Your task to perform on an android device: Add macbook to the cart on newegg.com Image 0: 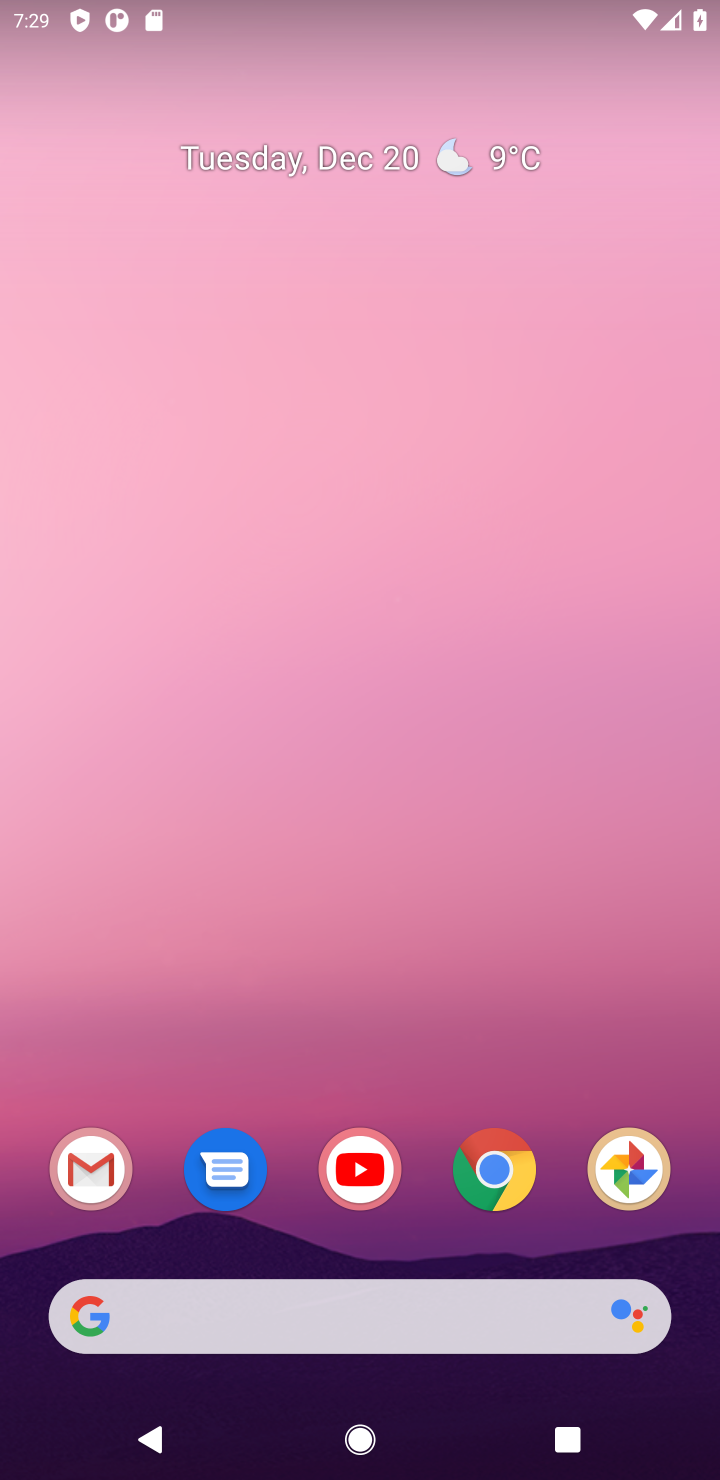
Step 0: click (482, 1194)
Your task to perform on an android device: Add macbook to the cart on newegg.com Image 1: 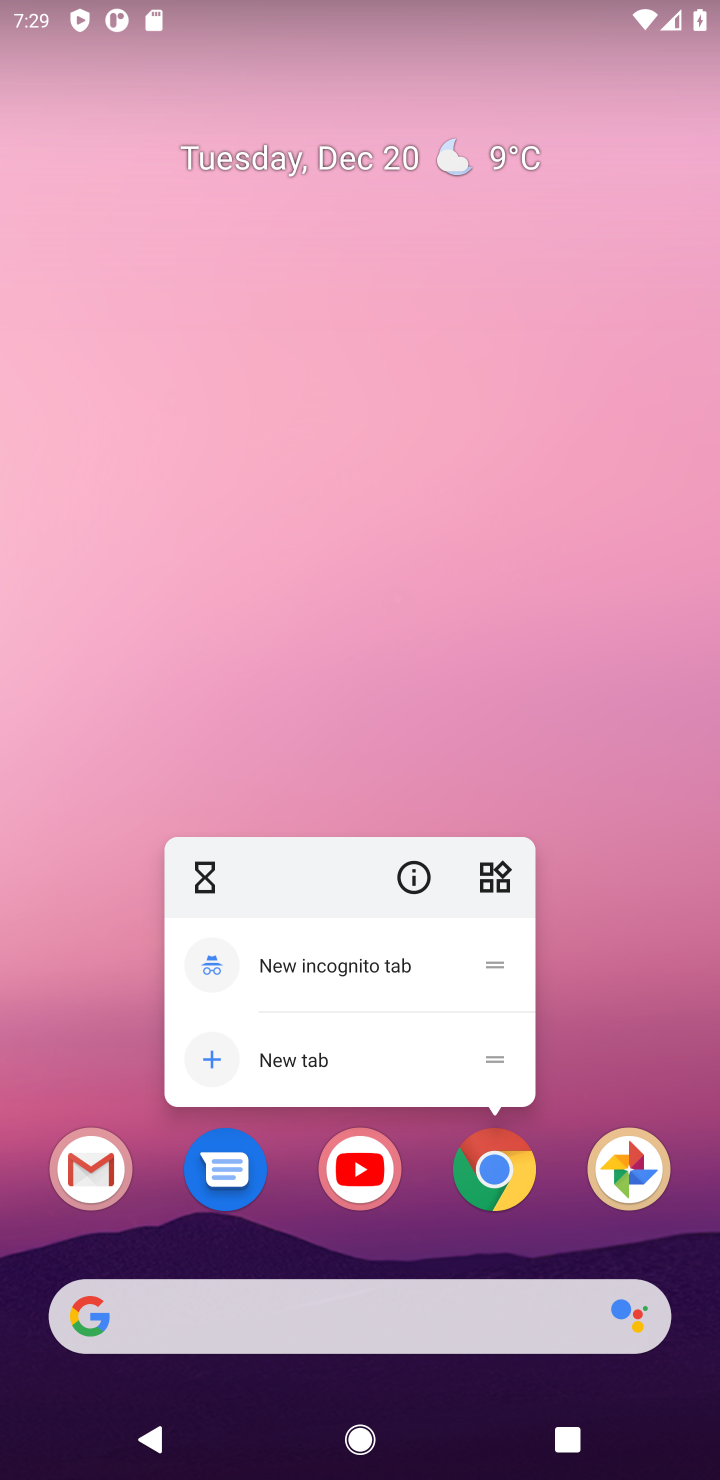
Step 1: click (482, 1194)
Your task to perform on an android device: Add macbook to the cart on newegg.com Image 2: 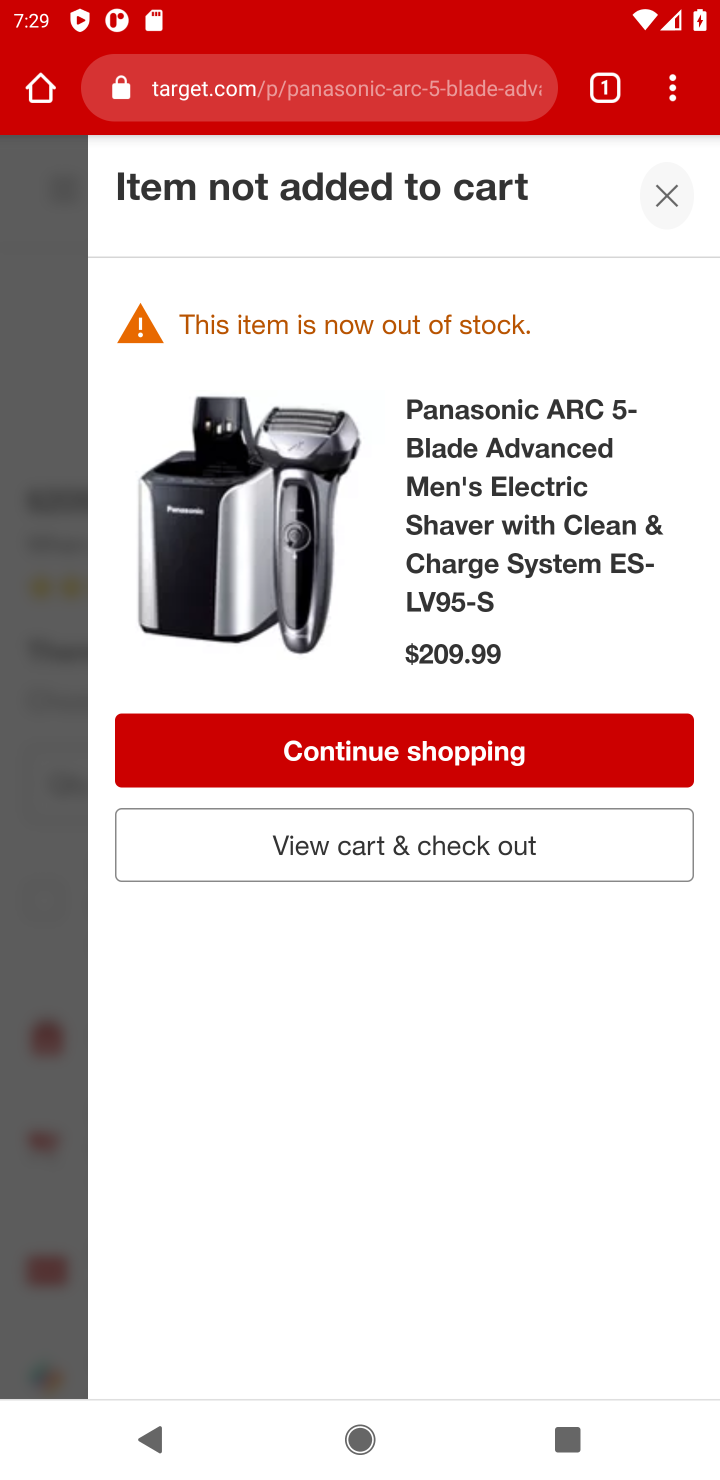
Step 2: click (680, 188)
Your task to perform on an android device: Add macbook to the cart on newegg.com Image 3: 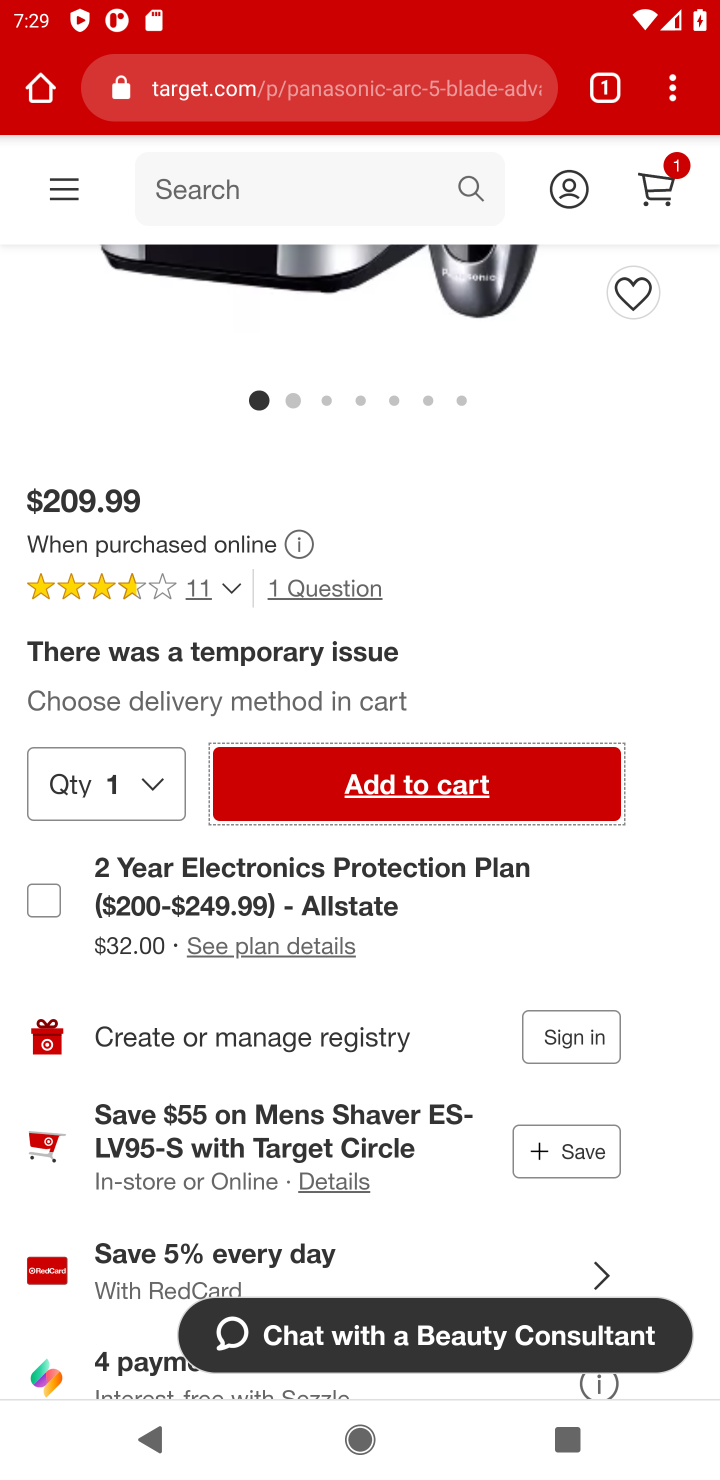
Step 3: click (463, 84)
Your task to perform on an android device: Add macbook to the cart on newegg.com Image 4: 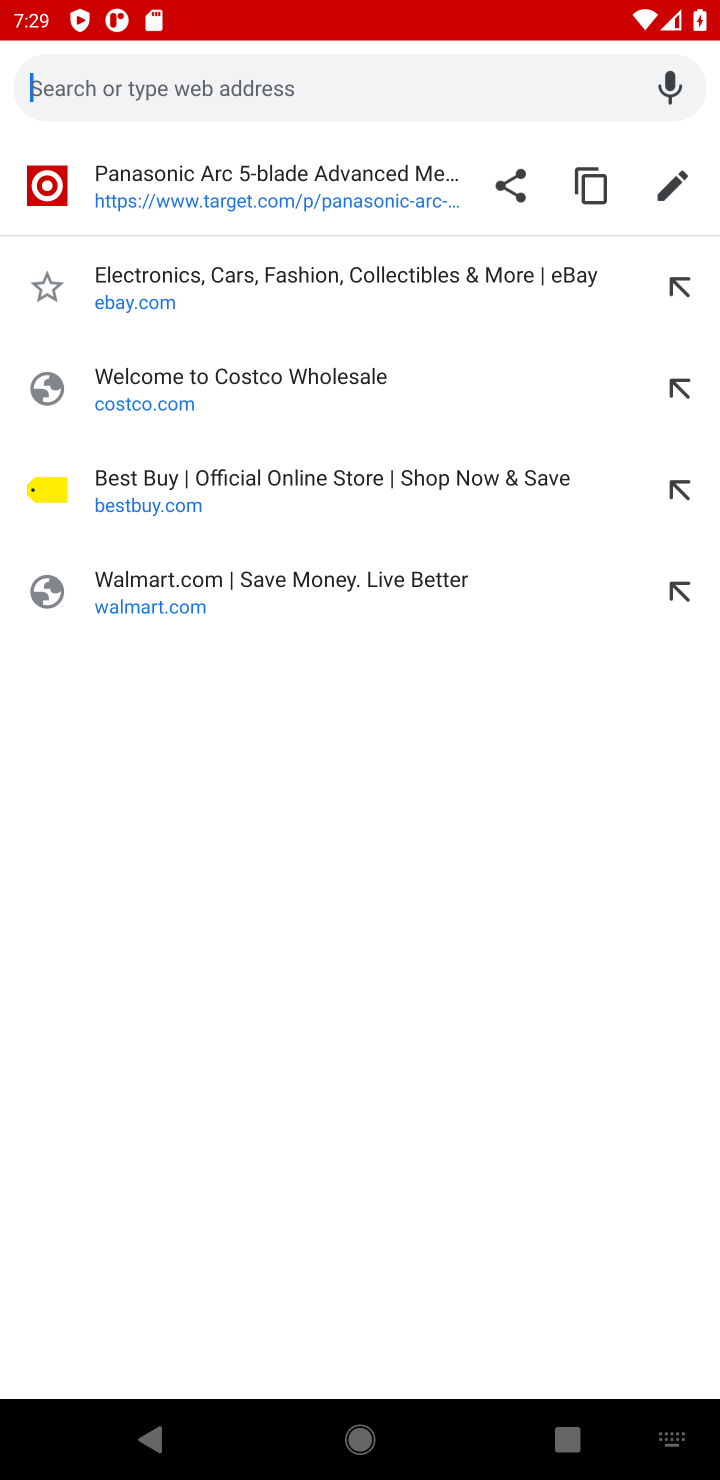
Step 4: type "newegg"
Your task to perform on an android device: Add macbook to the cart on newegg.com Image 5: 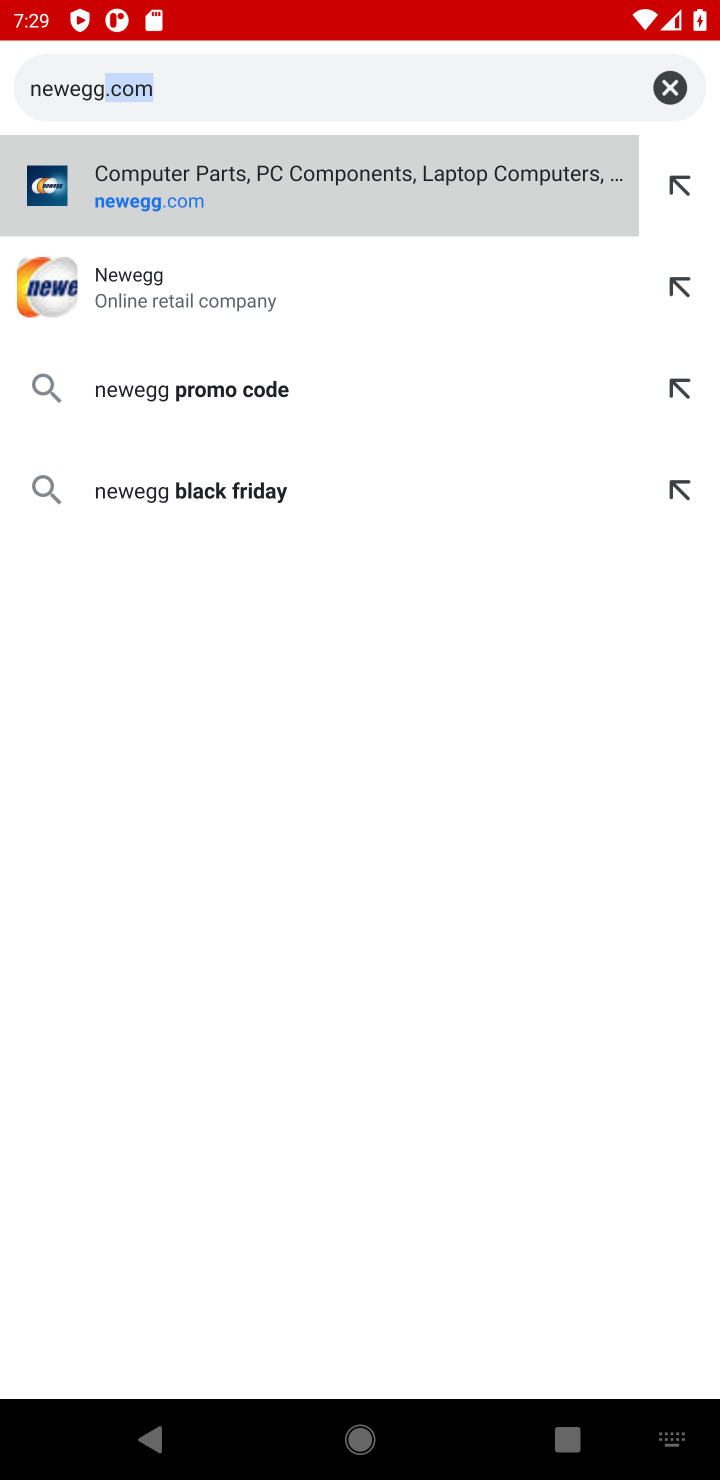
Step 5: click (186, 207)
Your task to perform on an android device: Add macbook to the cart on newegg.com Image 6: 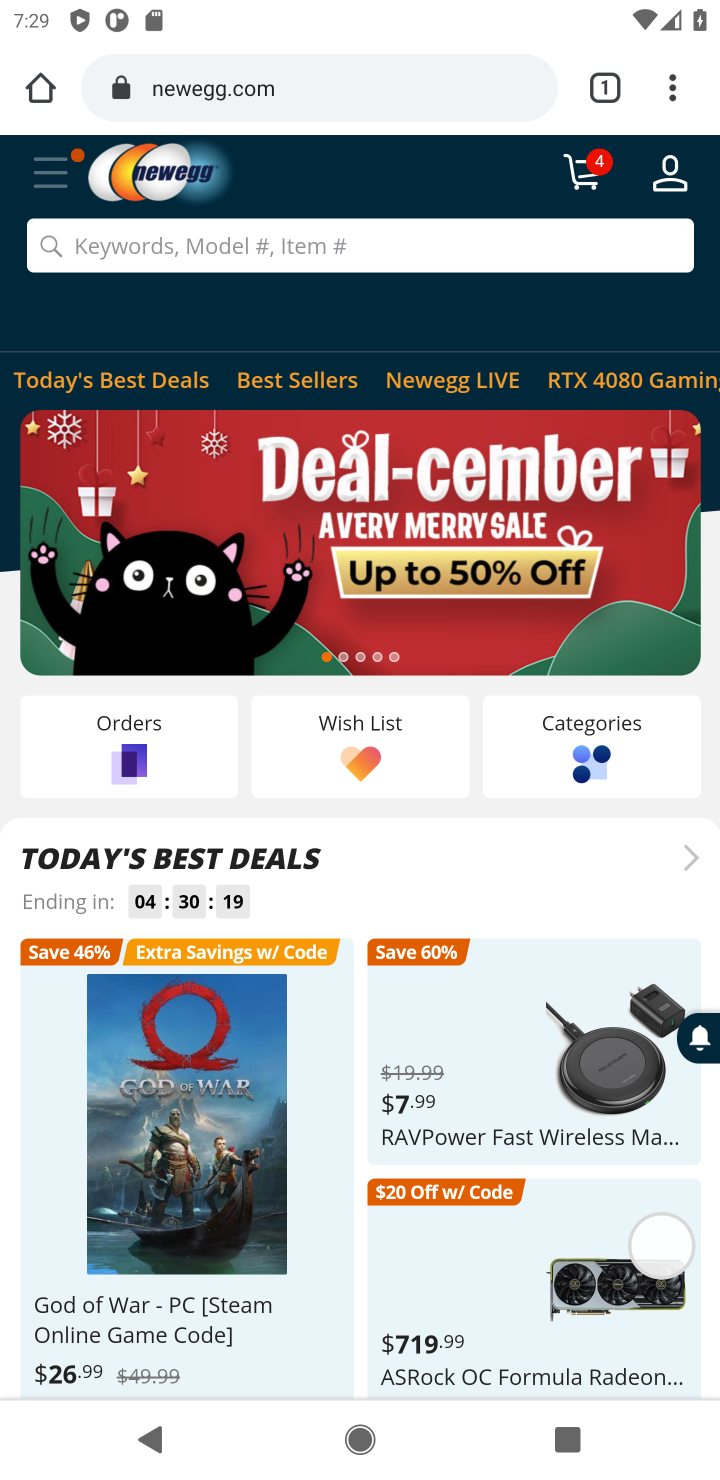
Step 6: click (354, 233)
Your task to perform on an android device: Add macbook to the cart on newegg.com Image 7: 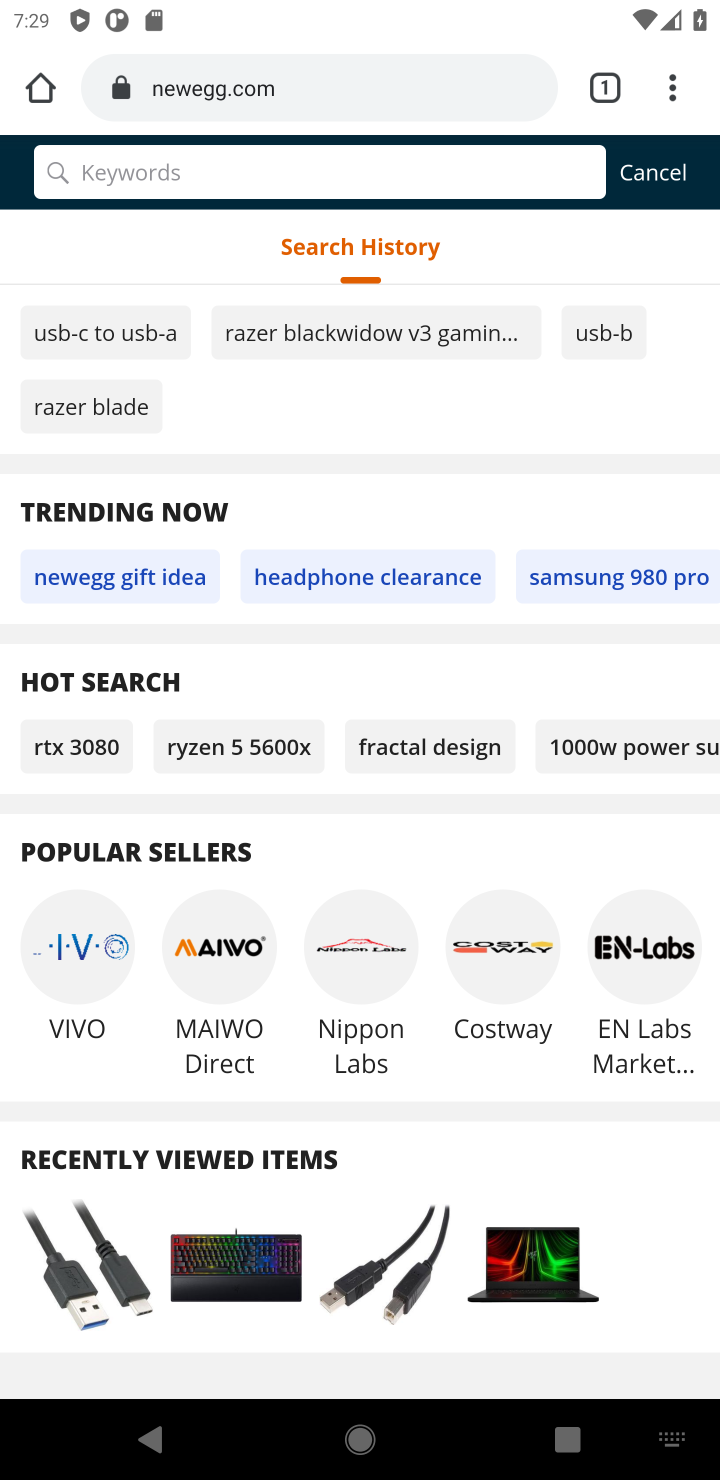
Step 7: type "macbook"
Your task to perform on an android device: Add macbook to the cart on newegg.com Image 8: 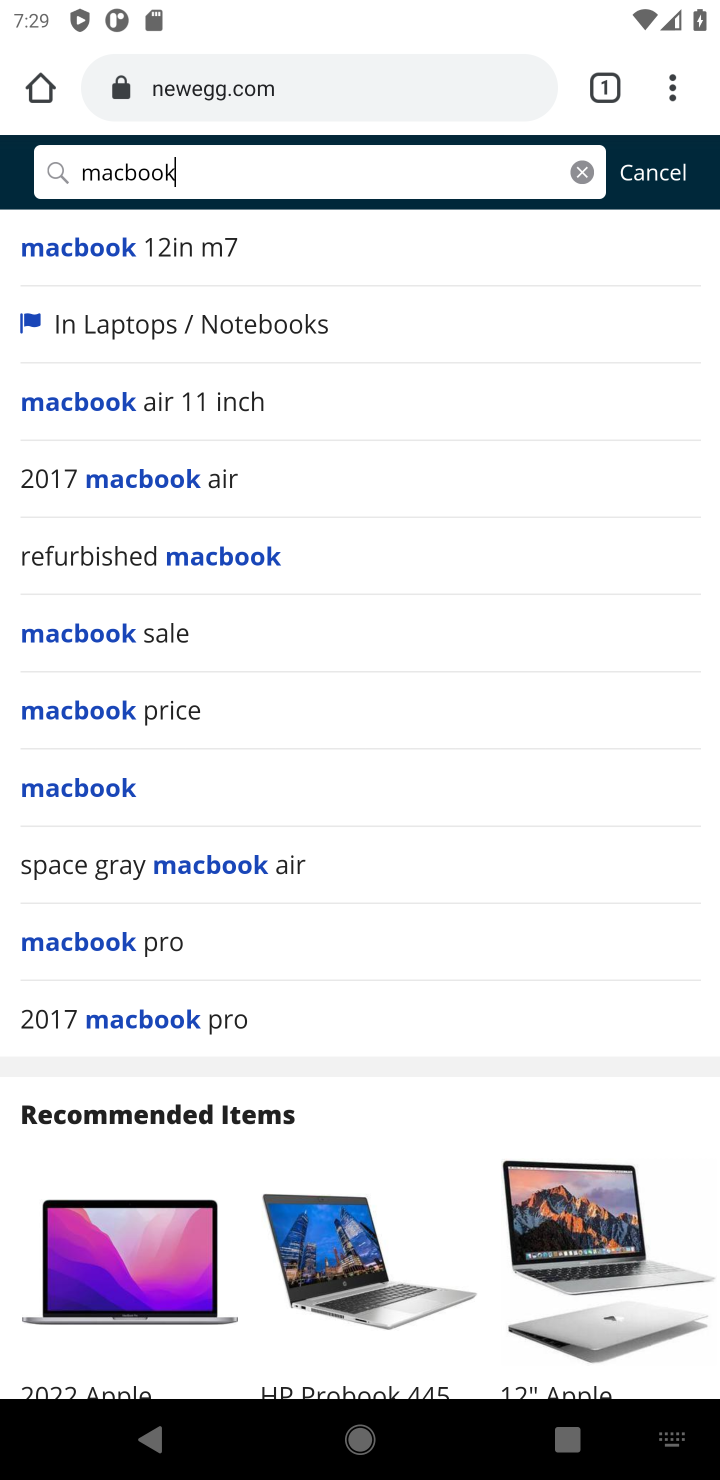
Step 8: click (69, 636)
Your task to perform on an android device: Add macbook to the cart on newegg.com Image 9: 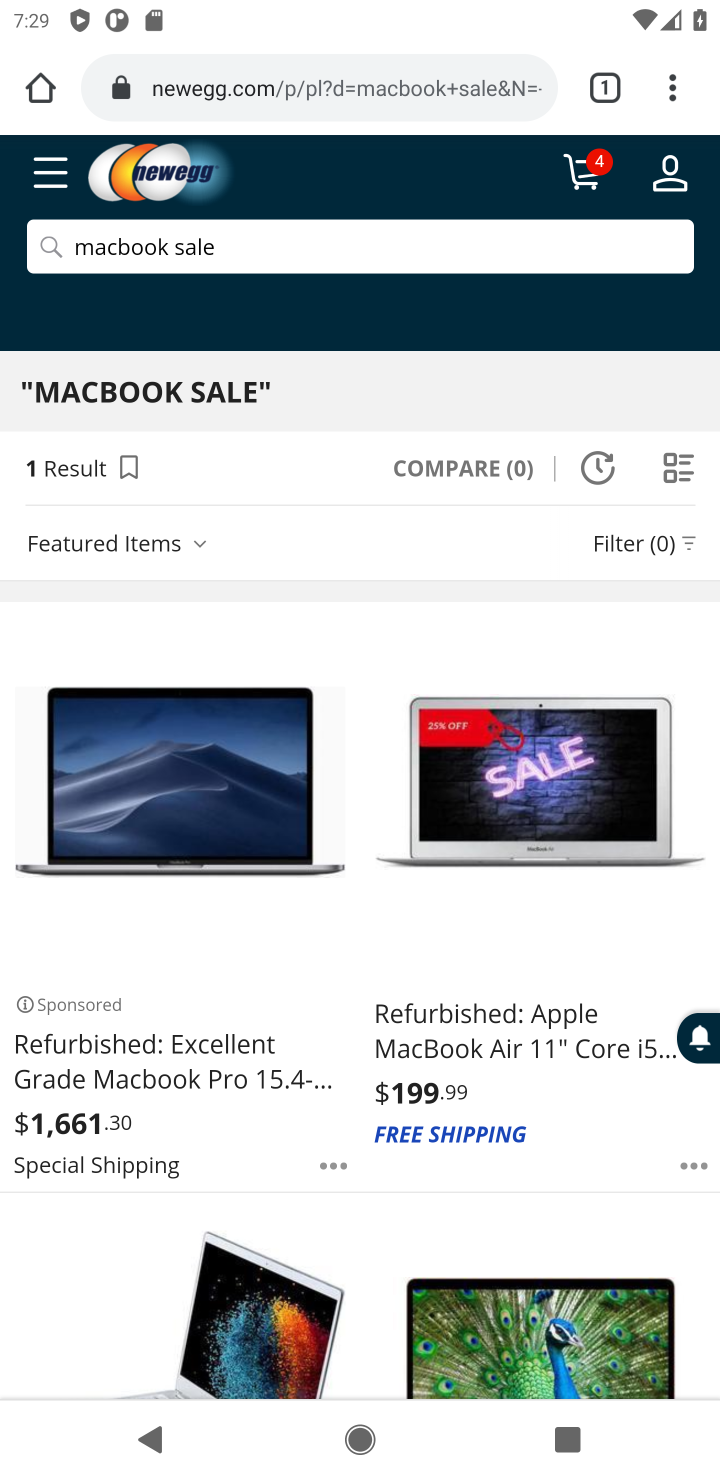
Step 9: click (151, 1024)
Your task to perform on an android device: Add macbook to the cart on newegg.com Image 10: 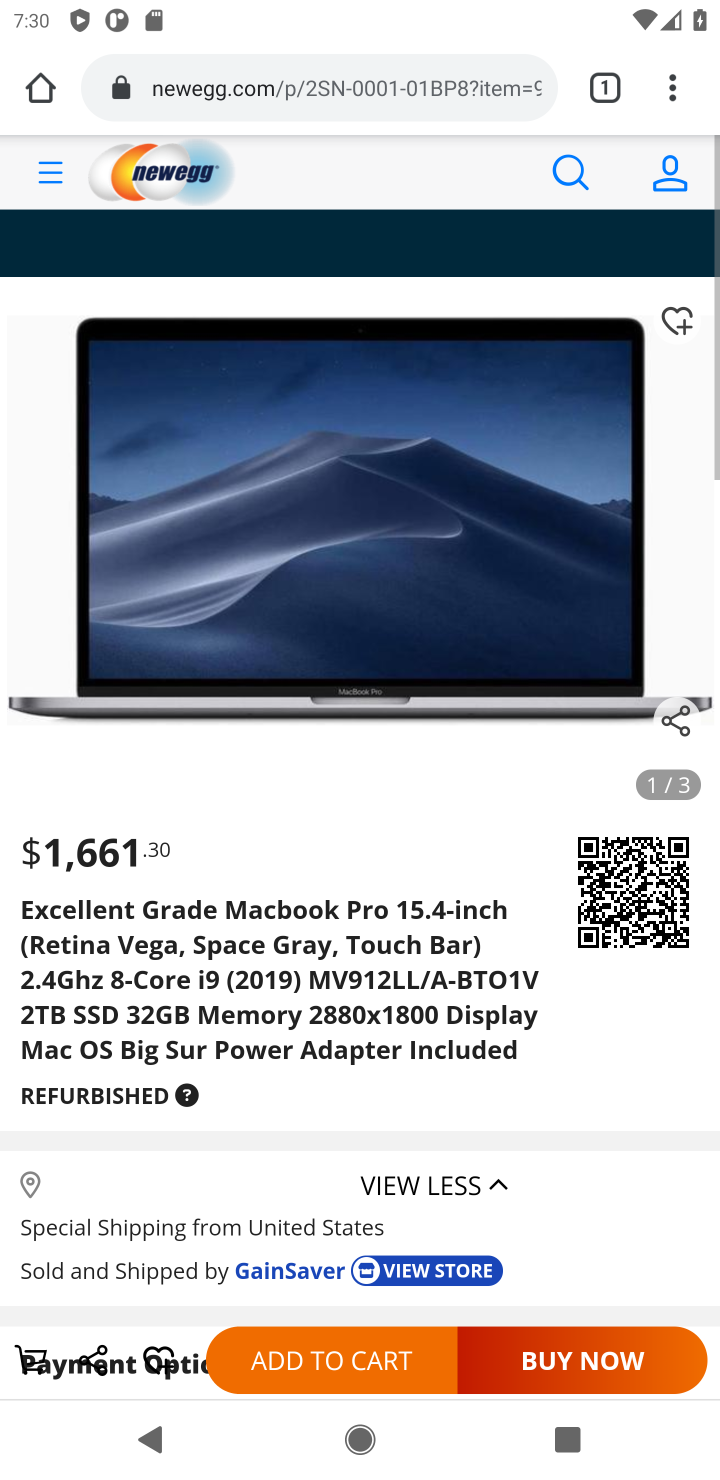
Step 10: click (311, 1348)
Your task to perform on an android device: Add macbook to the cart on newegg.com Image 11: 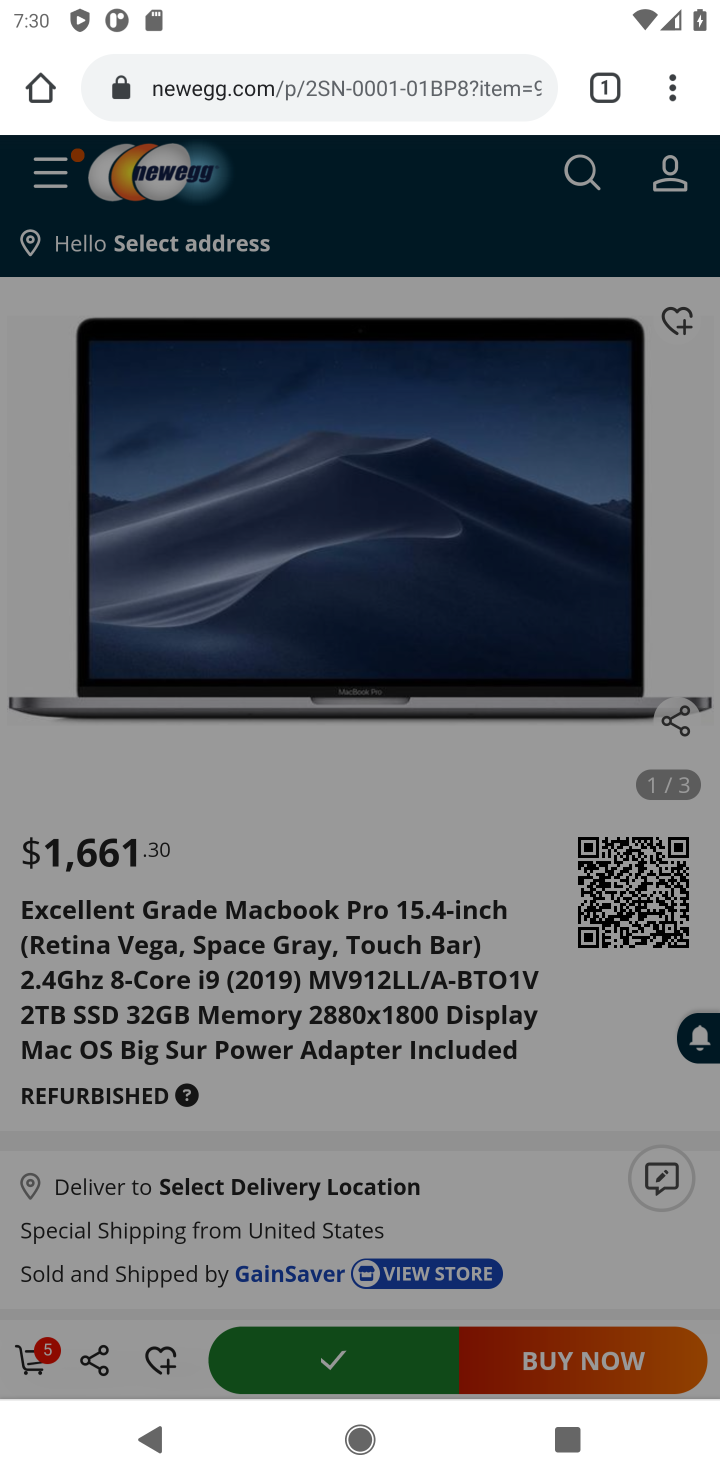
Step 11: task complete